Your task to perform on an android device: Open Google Chrome Image 0: 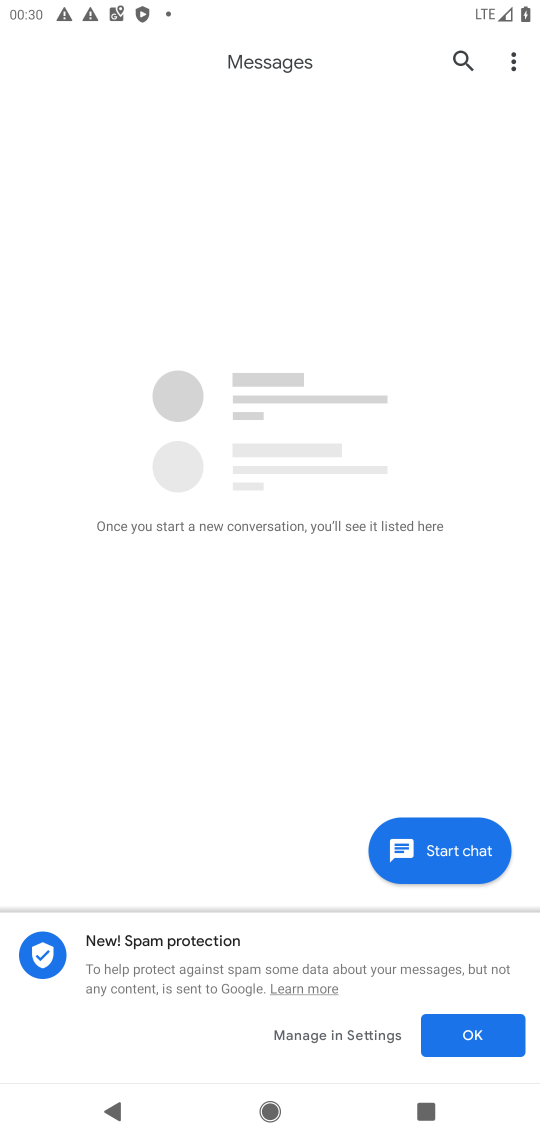
Step 0: press home button
Your task to perform on an android device: Open Google Chrome Image 1: 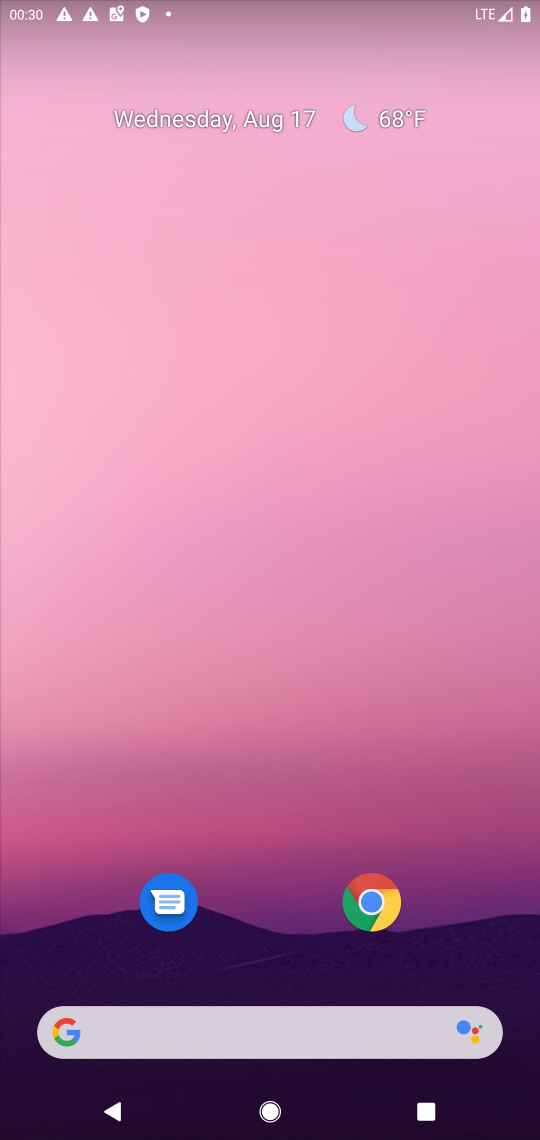
Step 1: click (377, 885)
Your task to perform on an android device: Open Google Chrome Image 2: 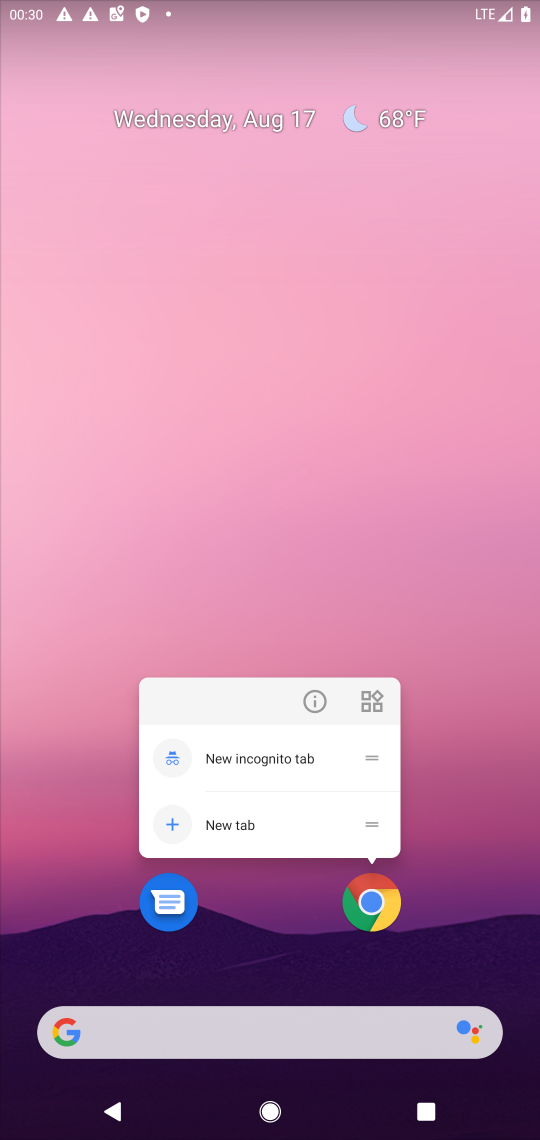
Step 2: click (386, 912)
Your task to perform on an android device: Open Google Chrome Image 3: 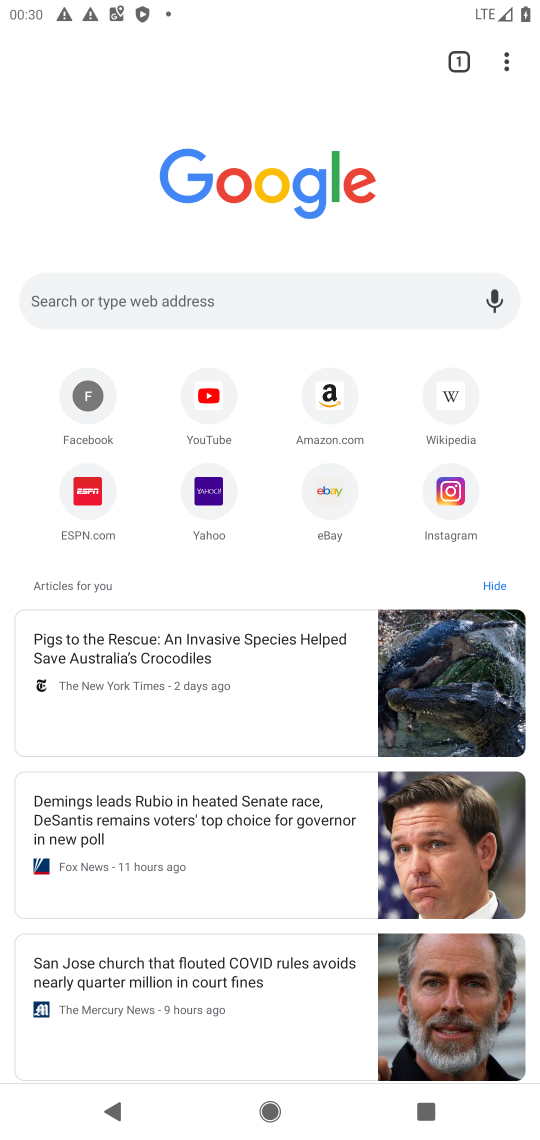
Step 3: task complete